Your task to perform on an android device: open wifi settings Image 0: 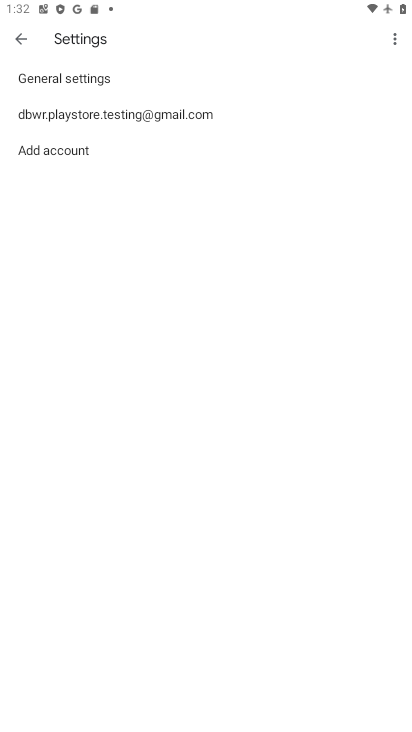
Step 0: press home button
Your task to perform on an android device: open wifi settings Image 1: 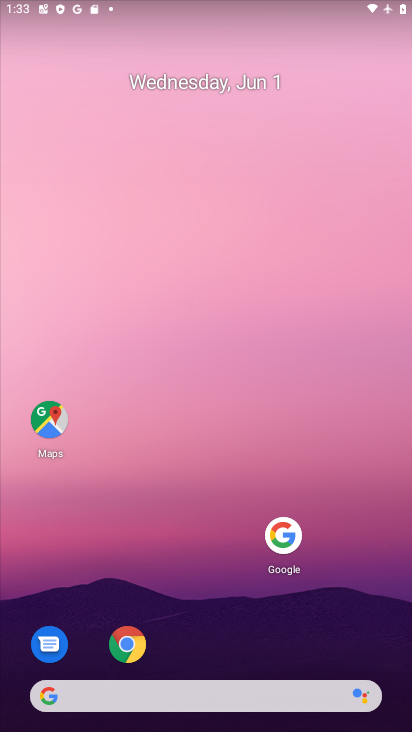
Step 1: drag from (147, 695) to (228, 129)
Your task to perform on an android device: open wifi settings Image 2: 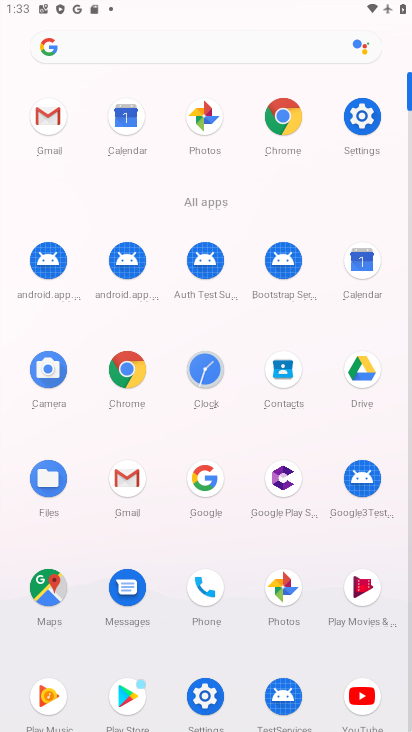
Step 2: click (359, 115)
Your task to perform on an android device: open wifi settings Image 3: 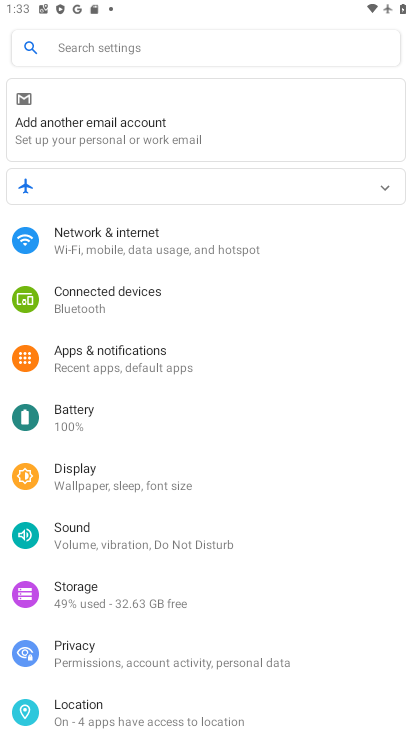
Step 3: click (144, 240)
Your task to perform on an android device: open wifi settings Image 4: 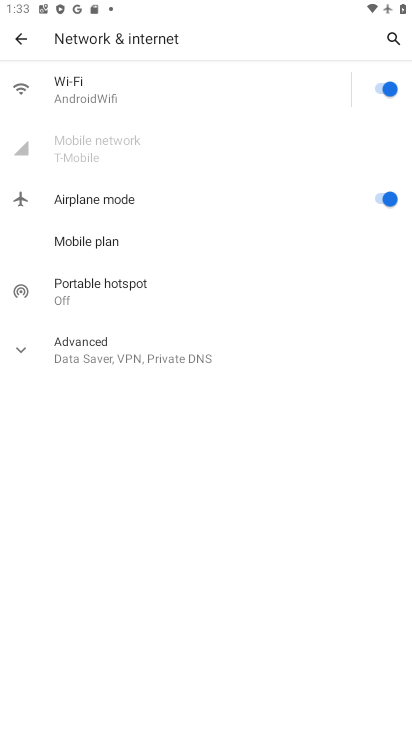
Step 4: click (95, 96)
Your task to perform on an android device: open wifi settings Image 5: 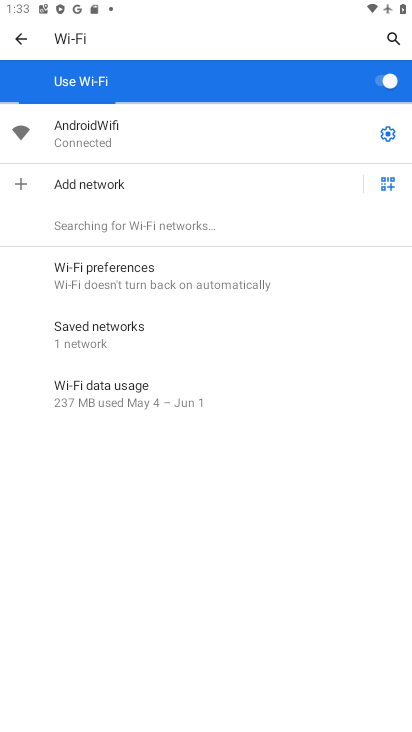
Step 5: task complete